Your task to perform on an android device: turn off improve location accuracy Image 0: 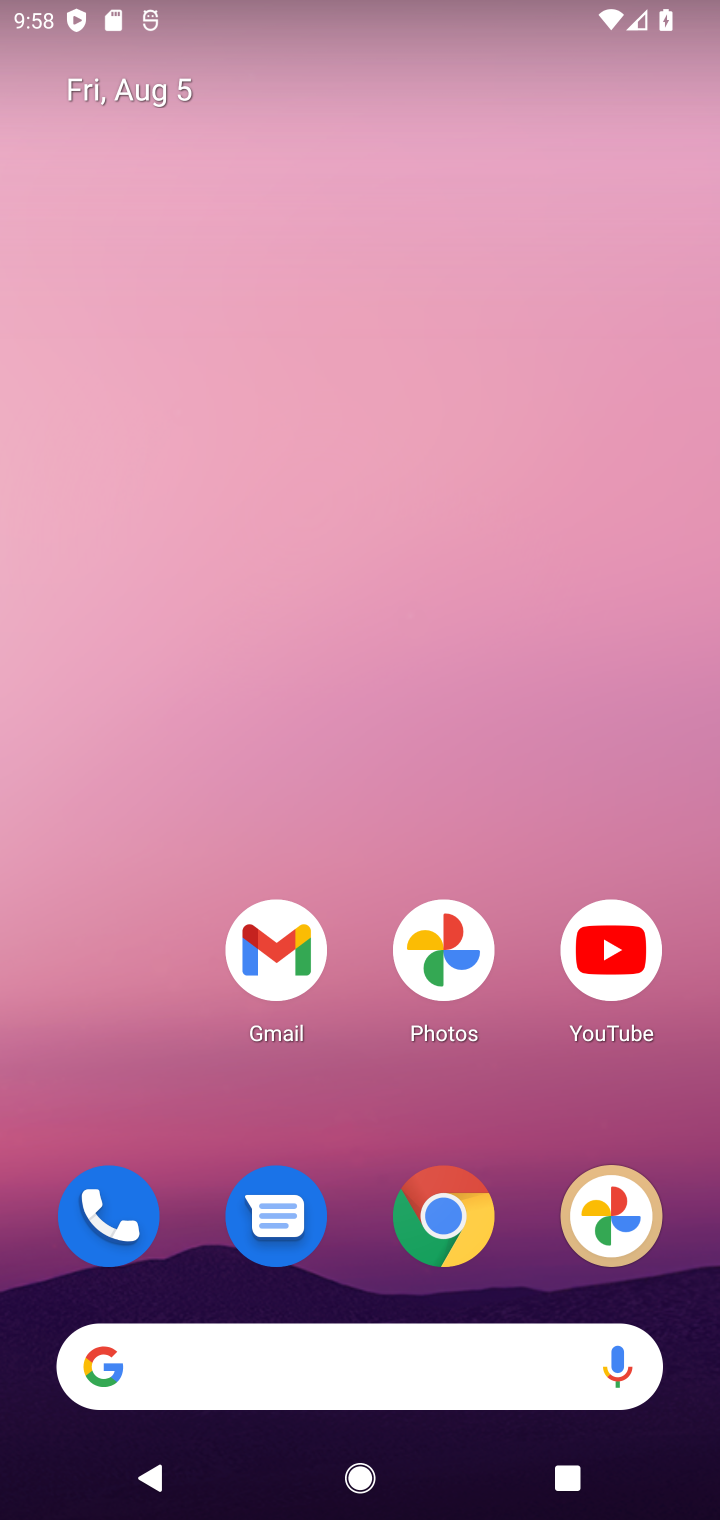
Step 0: drag from (403, 1374) to (535, 121)
Your task to perform on an android device: turn off improve location accuracy Image 1: 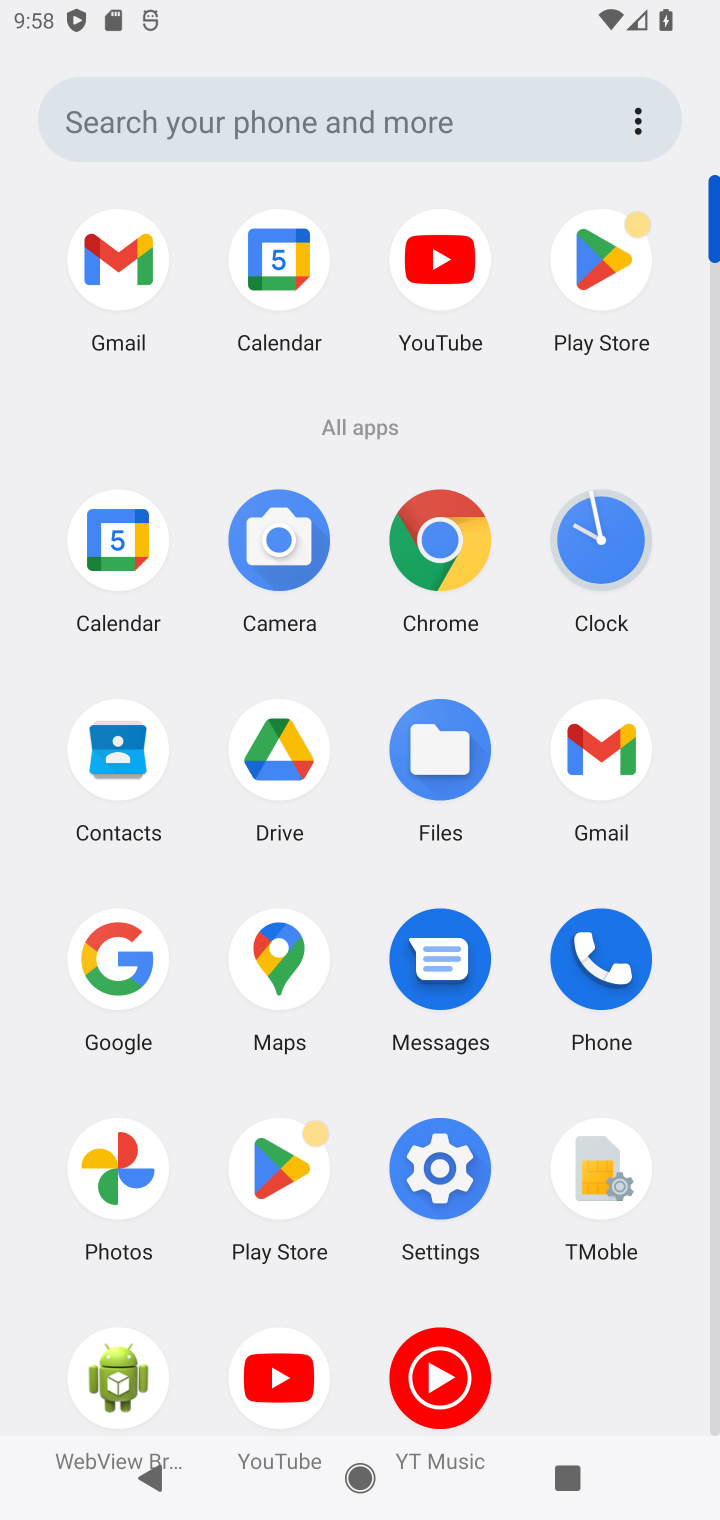
Step 1: click (433, 1162)
Your task to perform on an android device: turn off improve location accuracy Image 2: 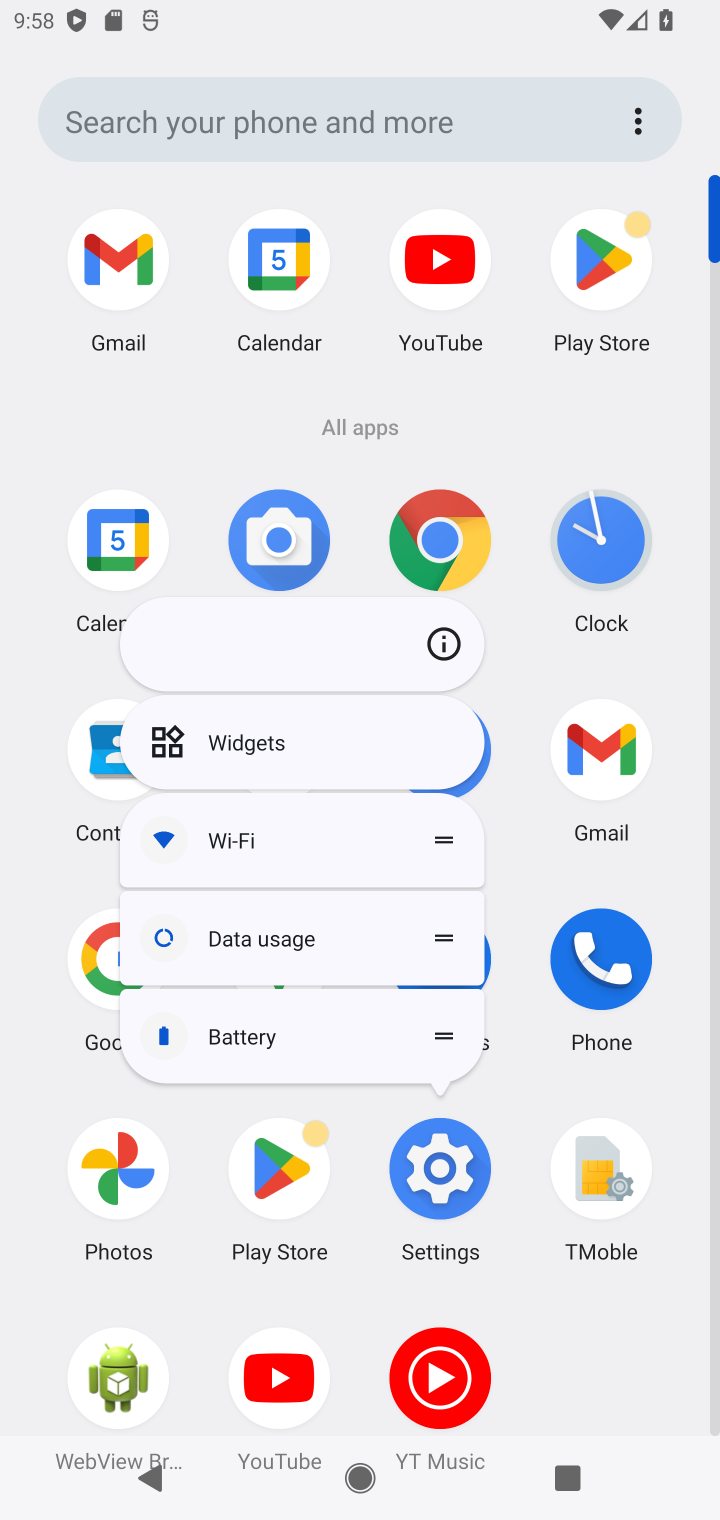
Step 2: click (433, 1162)
Your task to perform on an android device: turn off improve location accuracy Image 3: 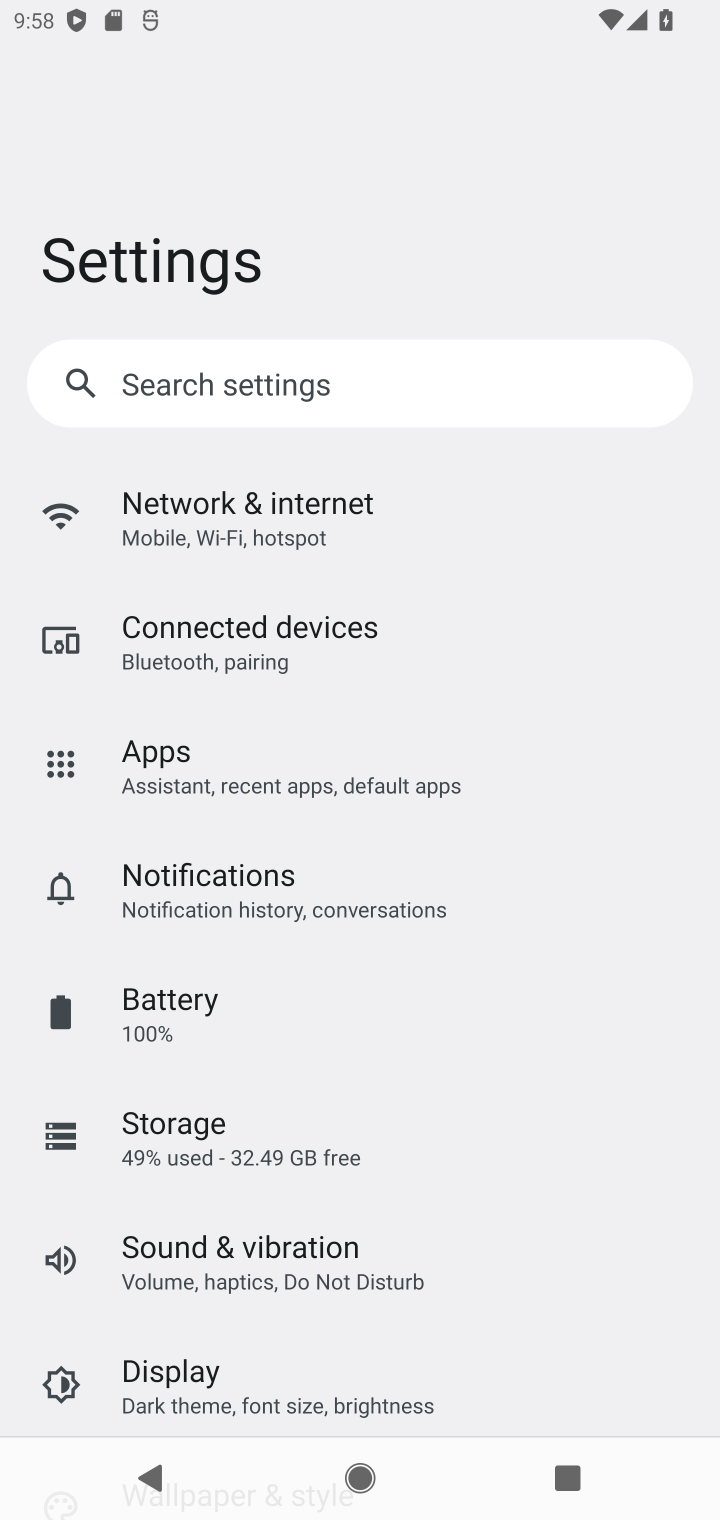
Step 3: drag from (395, 1294) to (505, 492)
Your task to perform on an android device: turn off improve location accuracy Image 4: 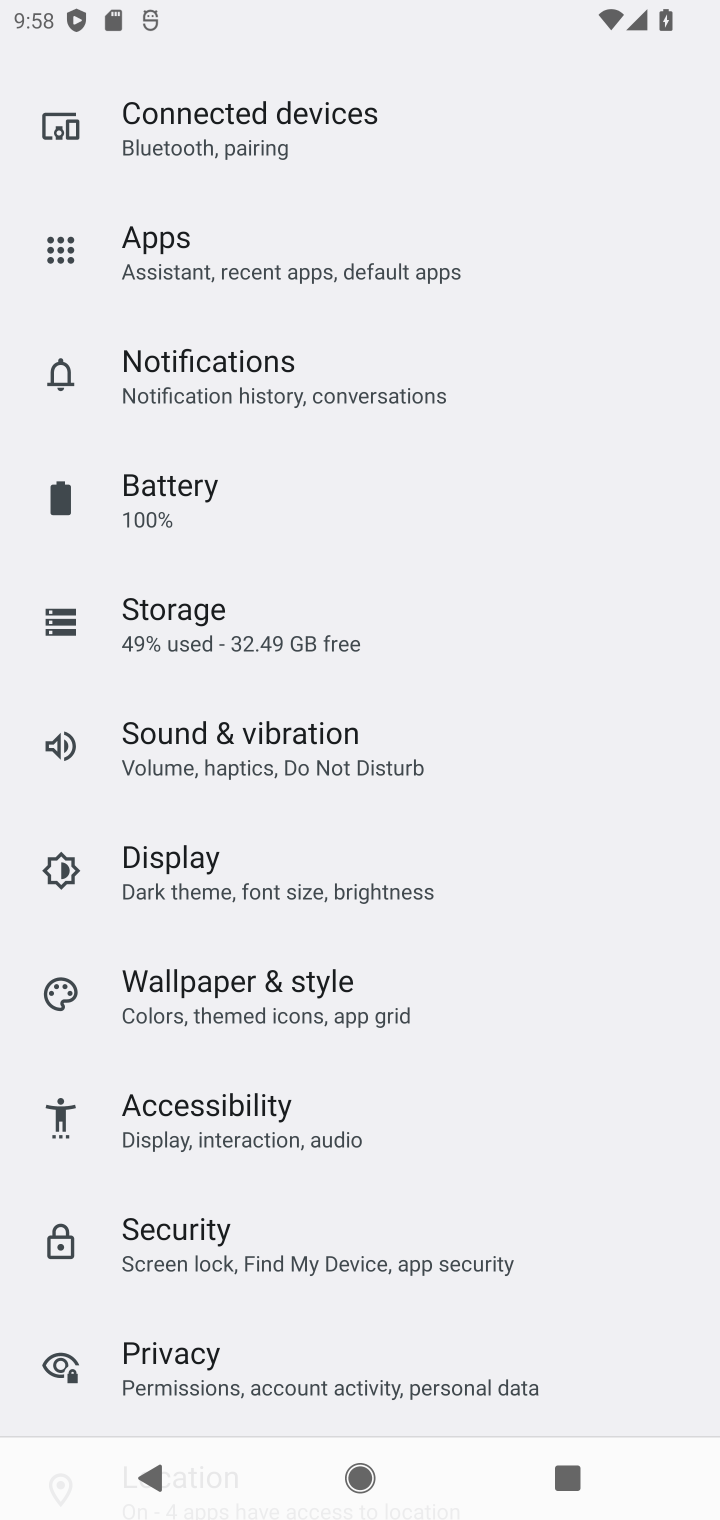
Step 4: drag from (376, 489) to (392, 1095)
Your task to perform on an android device: turn off improve location accuracy Image 5: 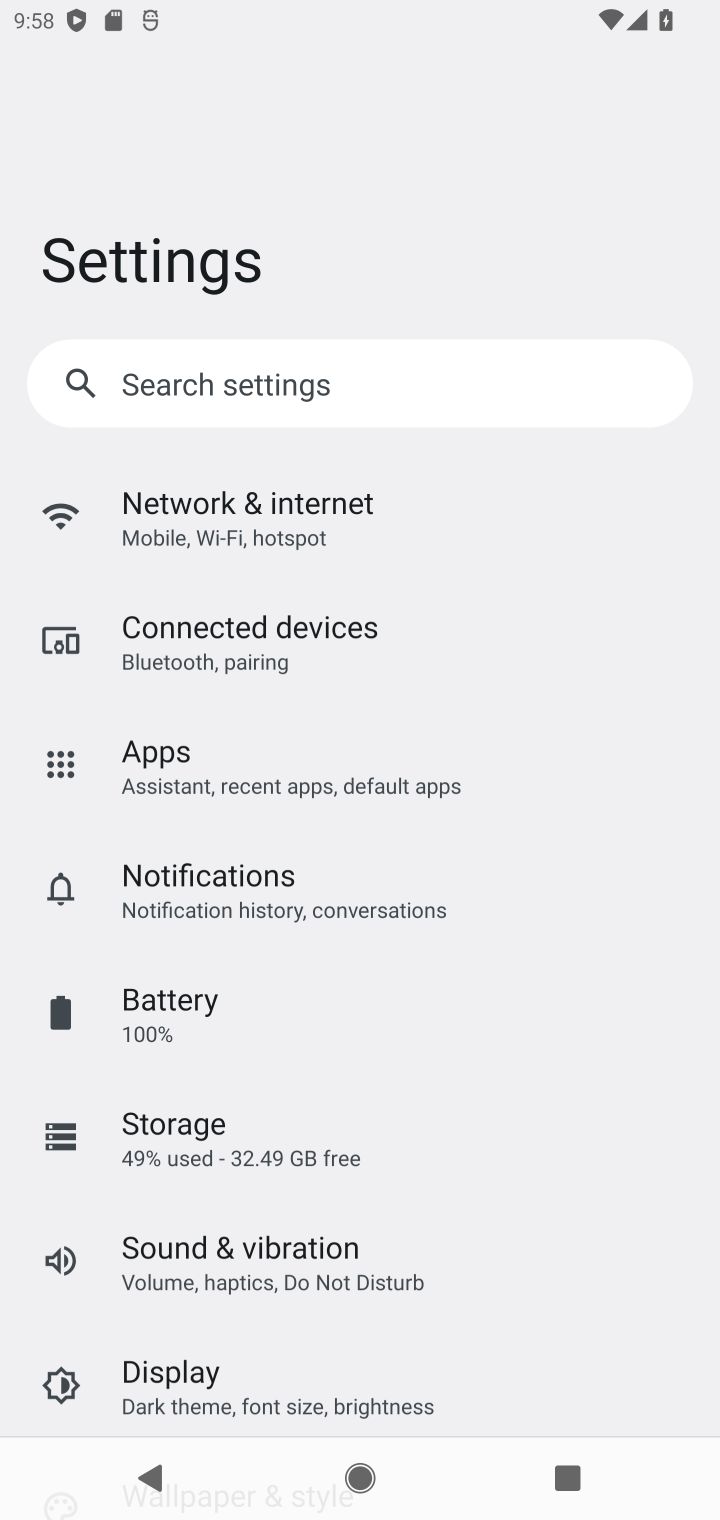
Step 5: drag from (472, 1302) to (529, 463)
Your task to perform on an android device: turn off improve location accuracy Image 6: 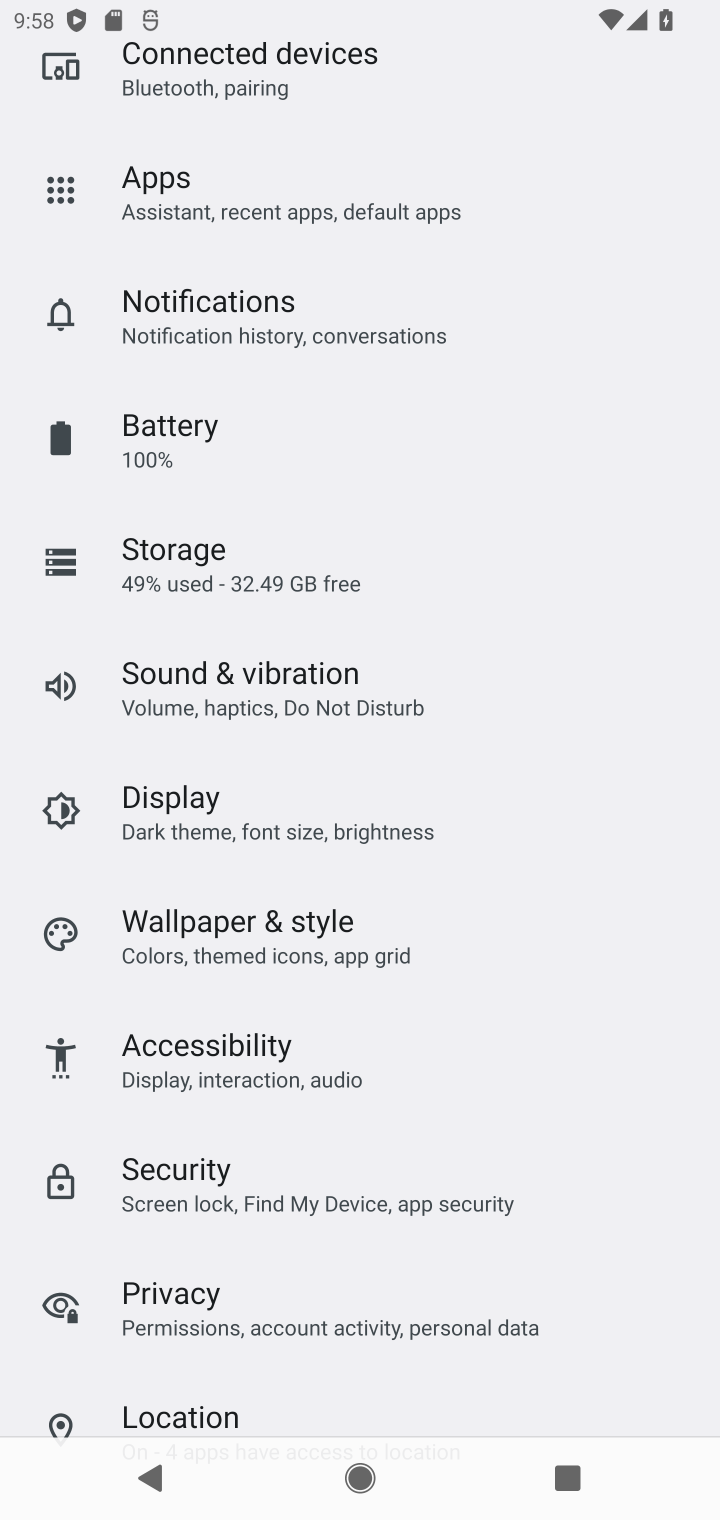
Step 6: click (284, 1409)
Your task to perform on an android device: turn off improve location accuracy Image 7: 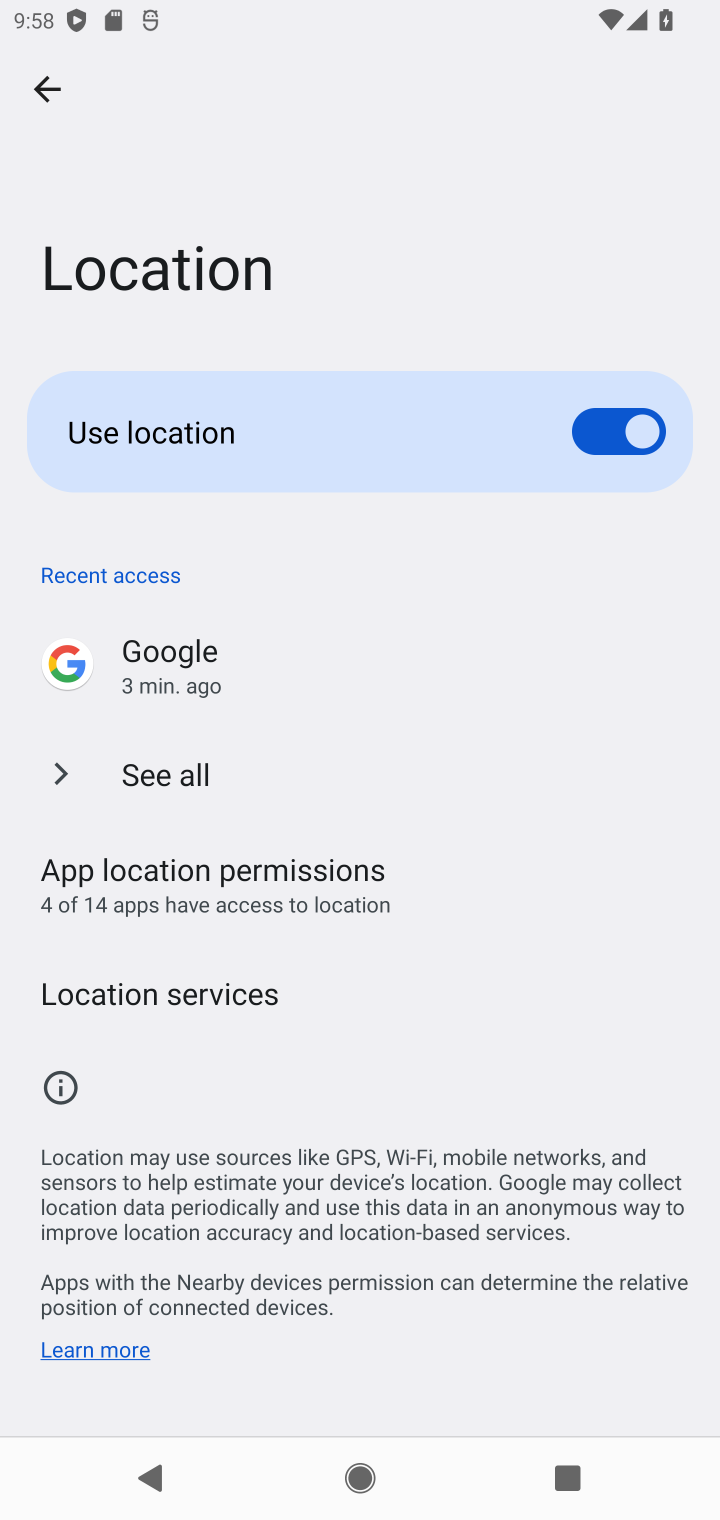
Step 7: click (256, 974)
Your task to perform on an android device: turn off improve location accuracy Image 8: 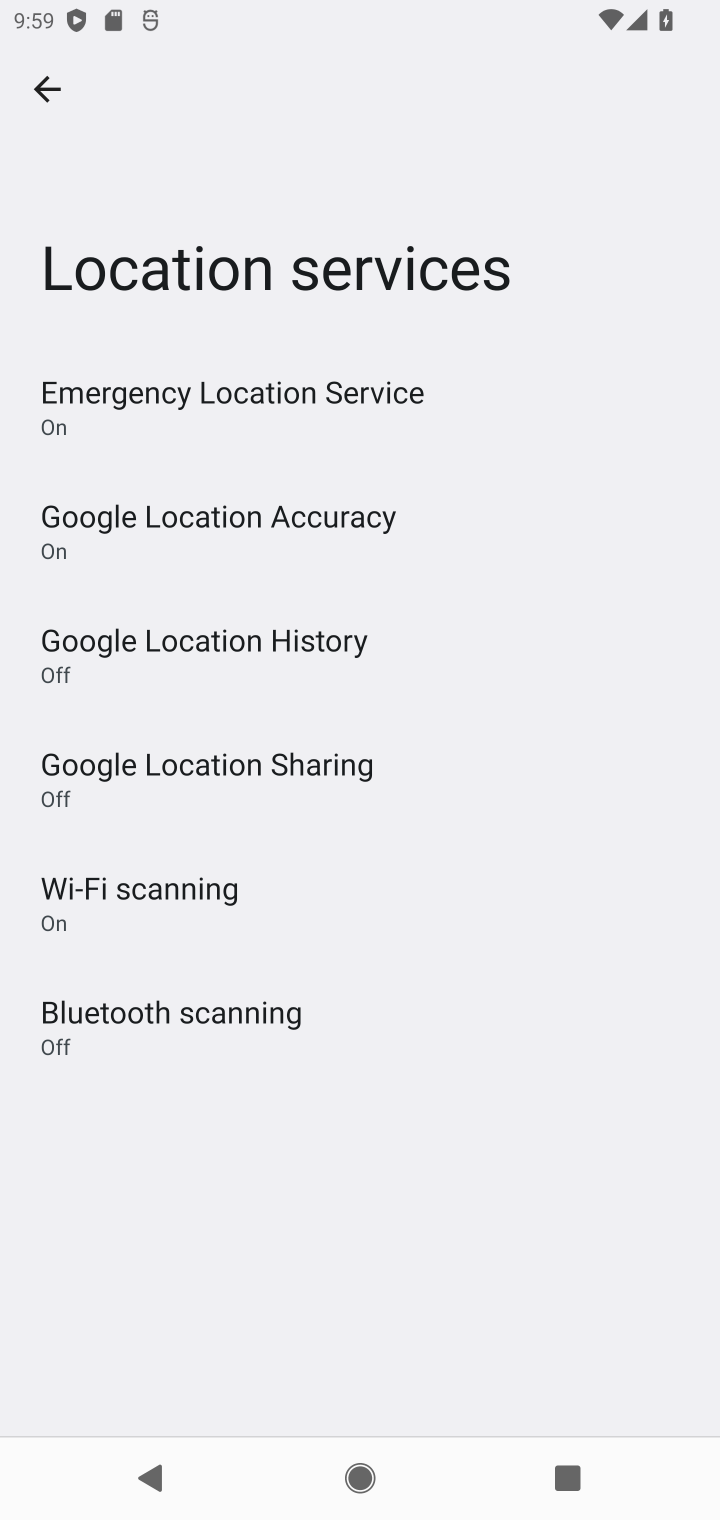
Step 8: click (304, 507)
Your task to perform on an android device: turn off improve location accuracy Image 9: 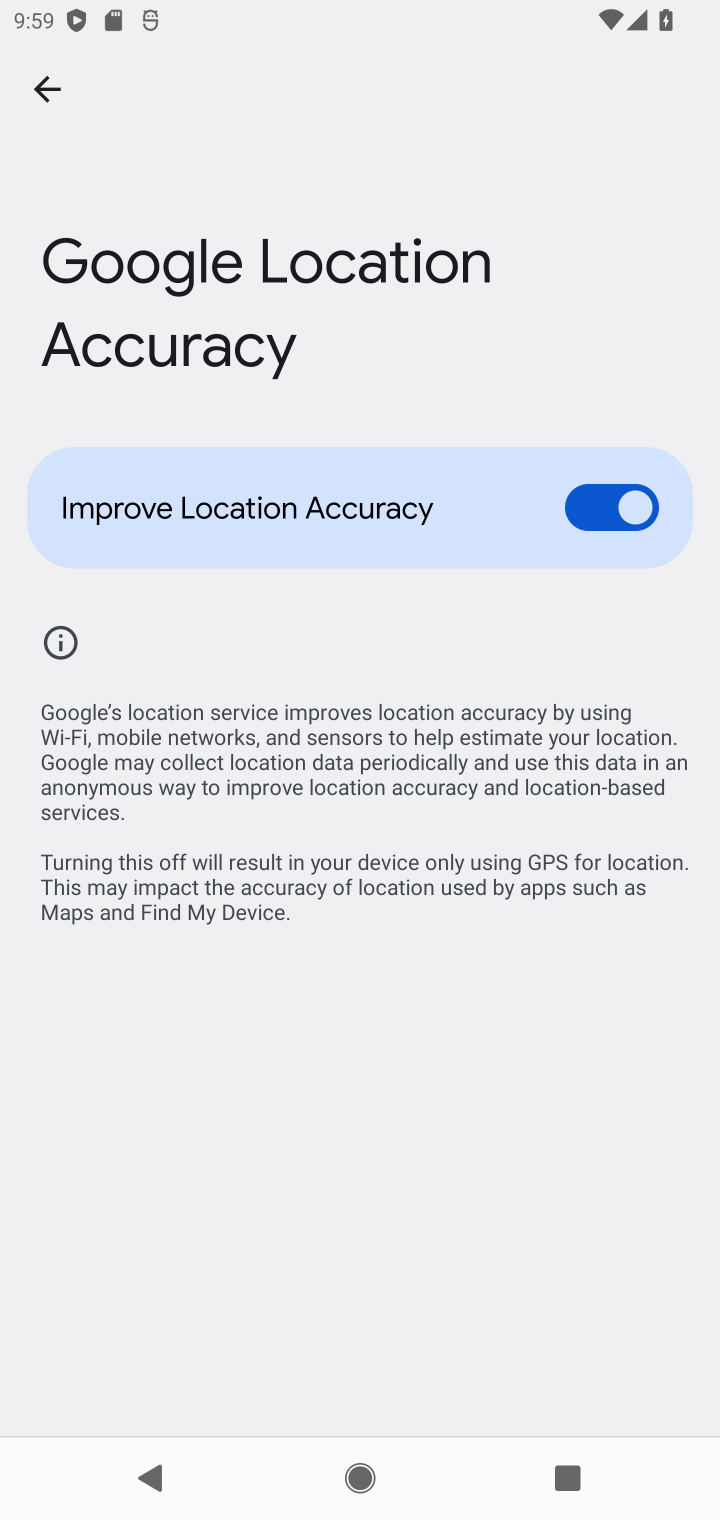
Step 9: click (596, 500)
Your task to perform on an android device: turn off improve location accuracy Image 10: 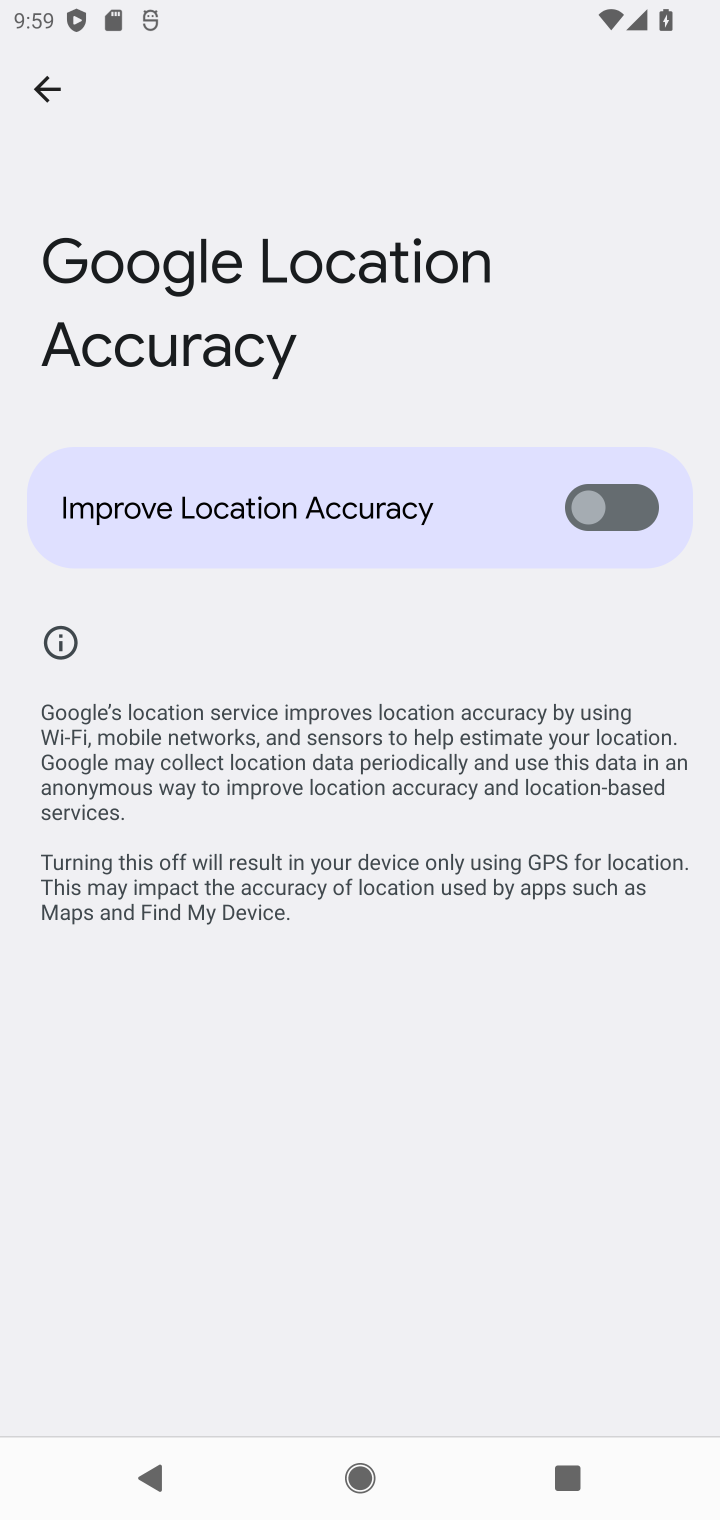
Step 10: task complete